Your task to perform on an android device: toggle pop-ups in chrome Image 0: 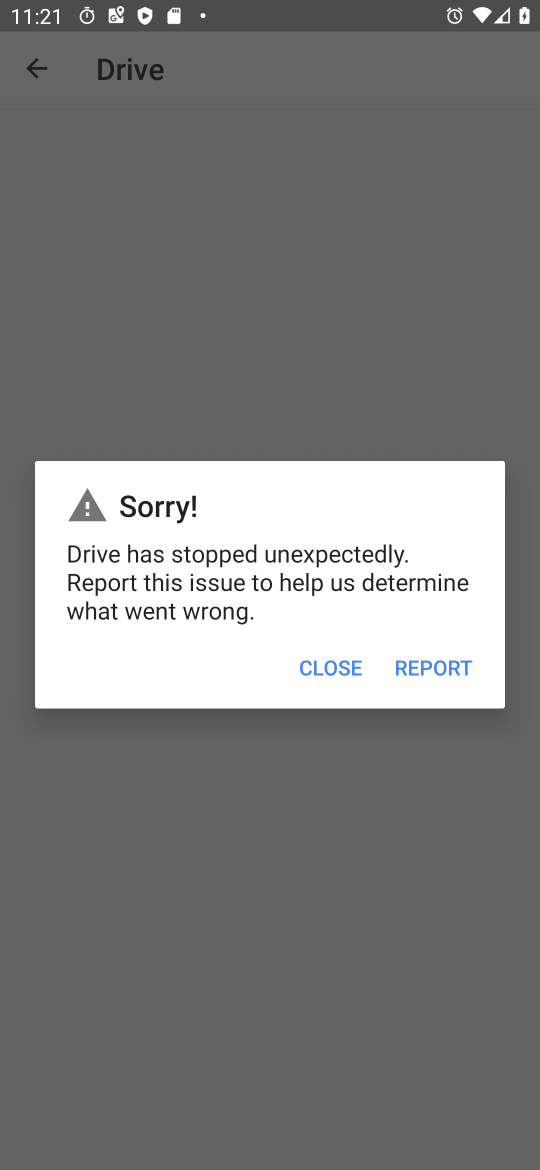
Step 0: press home button
Your task to perform on an android device: toggle pop-ups in chrome Image 1: 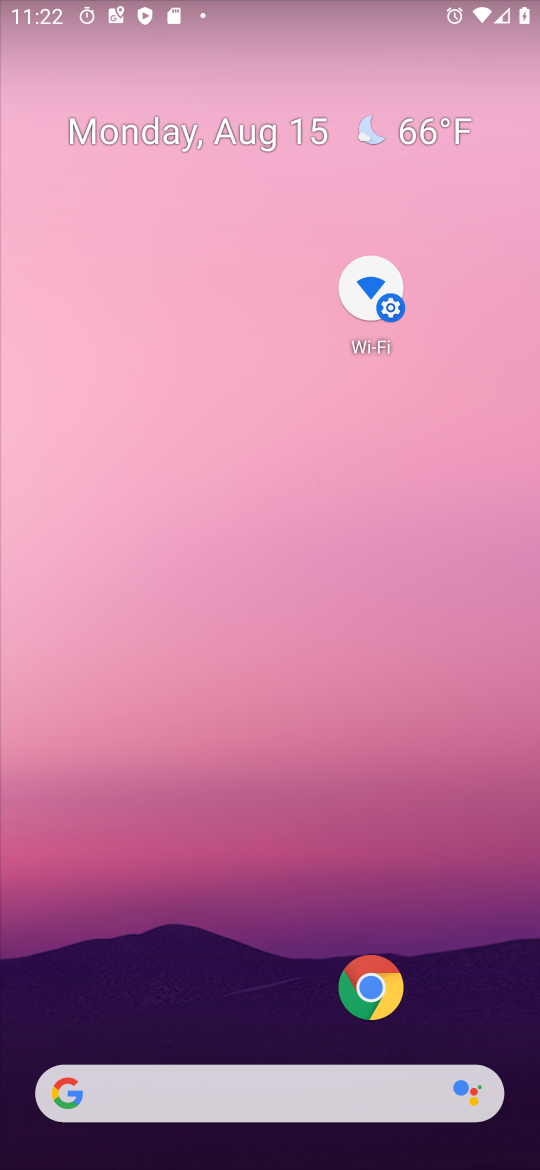
Step 1: drag from (285, 1042) to (469, 913)
Your task to perform on an android device: toggle pop-ups in chrome Image 2: 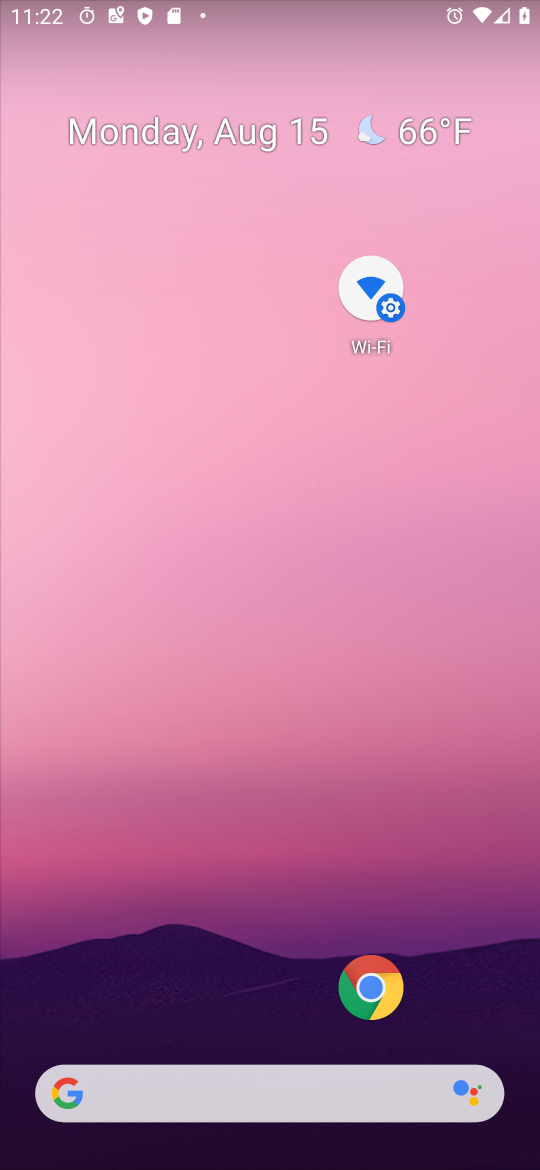
Step 2: click (354, 1006)
Your task to perform on an android device: toggle pop-ups in chrome Image 3: 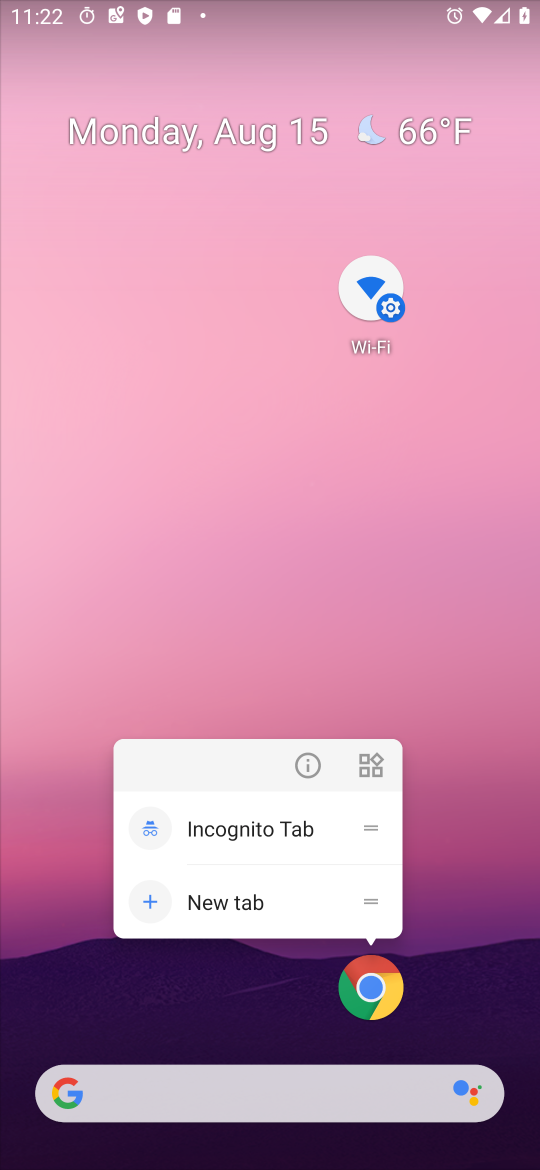
Step 3: click (373, 977)
Your task to perform on an android device: toggle pop-ups in chrome Image 4: 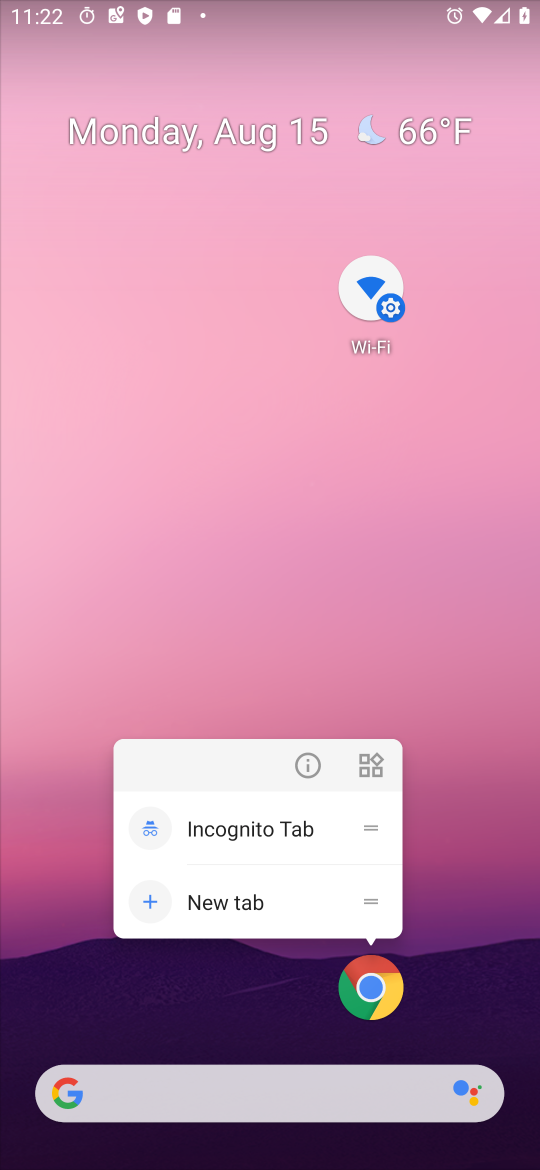
Step 4: click (385, 988)
Your task to perform on an android device: toggle pop-ups in chrome Image 5: 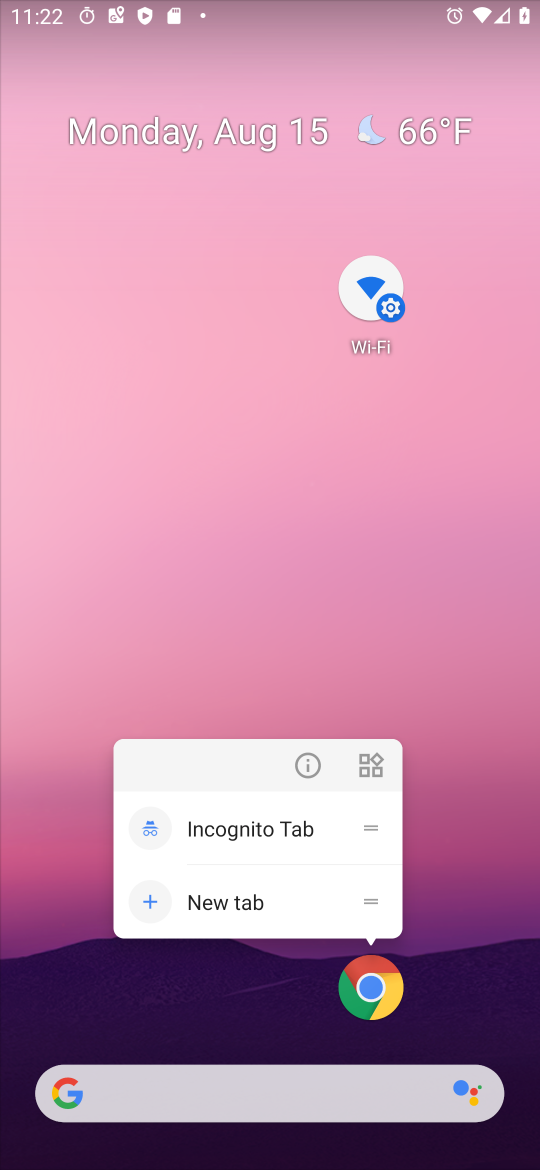
Step 5: click (371, 962)
Your task to perform on an android device: toggle pop-ups in chrome Image 6: 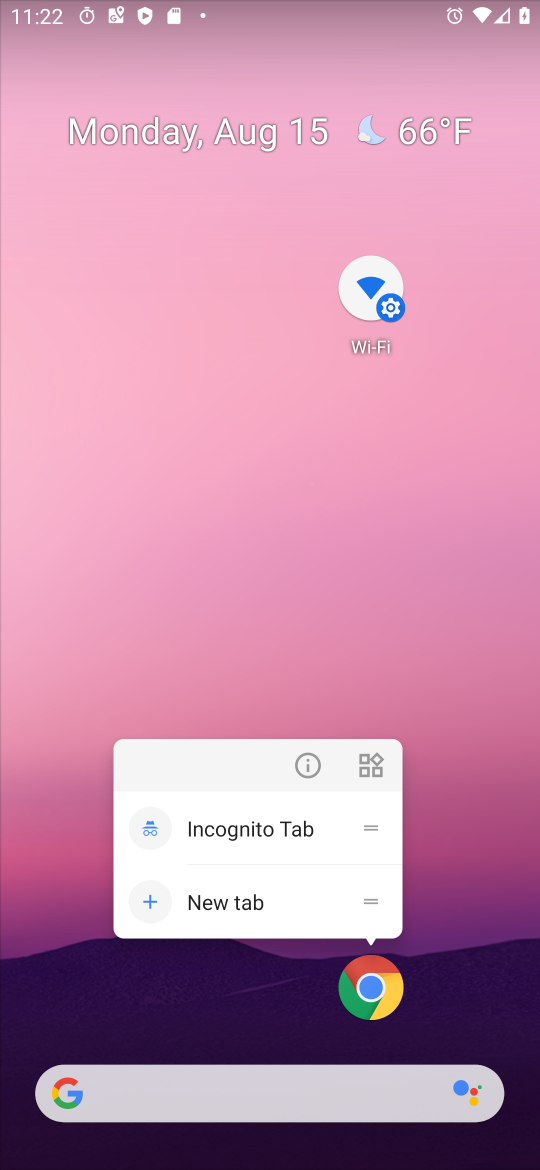
Step 6: click (381, 1001)
Your task to perform on an android device: toggle pop-ups in chrome Image 7: 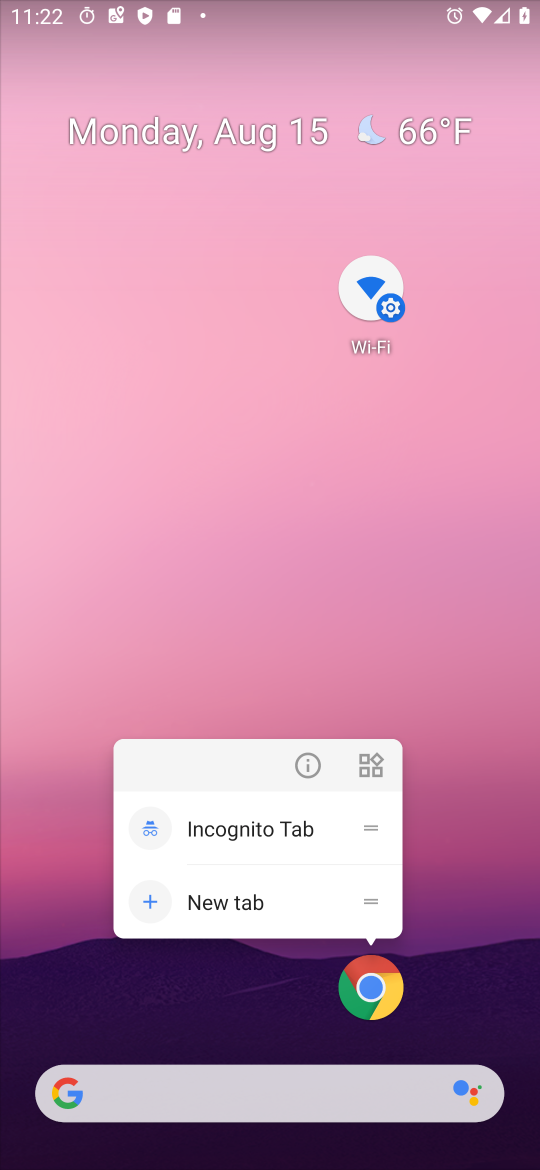
Step 7: click (382, 1002)
Your task to perform on an android device: toggle pop-ups in chrome Image 8: 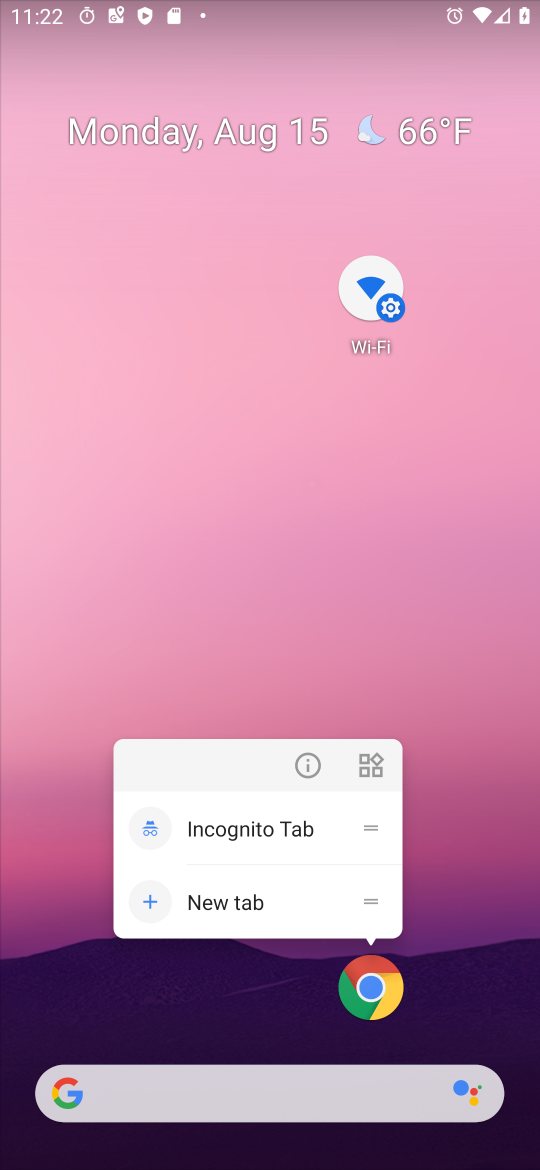
Step 8: click (384, 1002)
Your task to perform on an android device: toggle pop-ups in chrome Image 9: 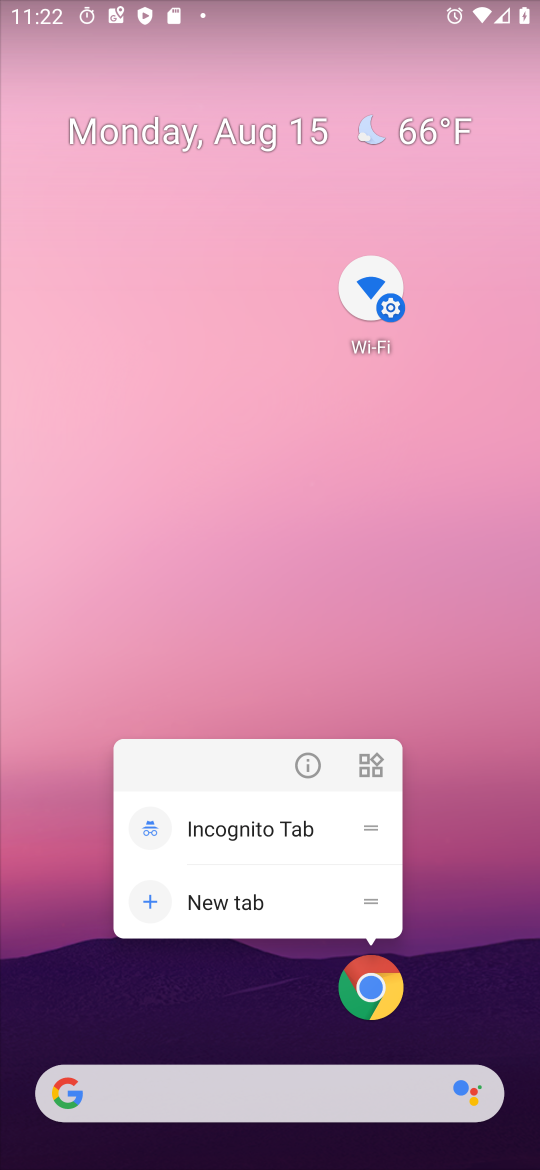
Step 9: click (387, 992)
Your task to perform on an android device: toggle pop-ups in chrome Image 10: 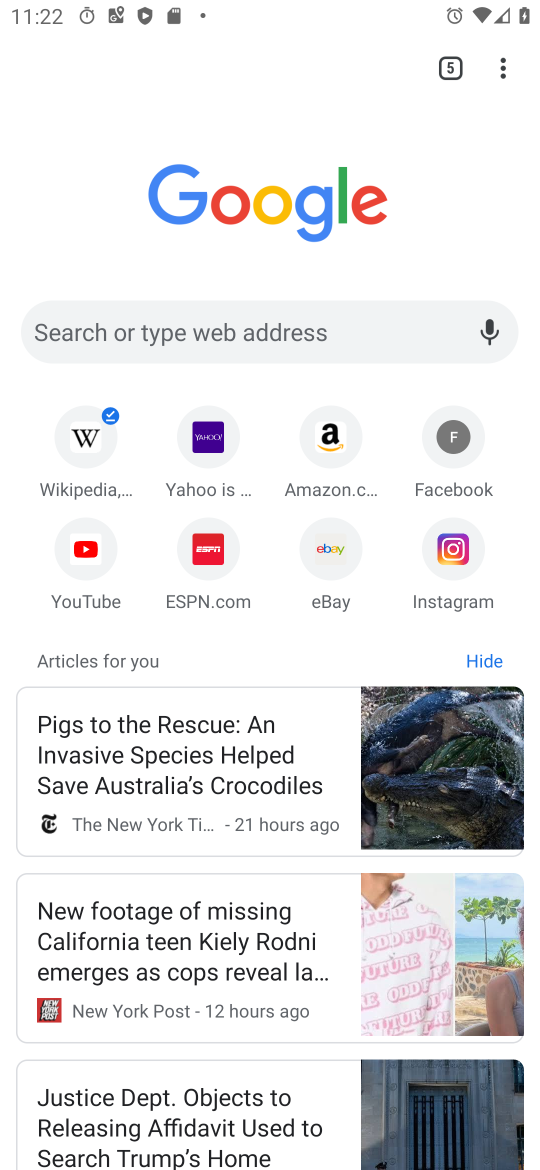
Step 10: click (498, 67)
Your task to perform on an android device: toggle pop-ups in chrome Image 11: 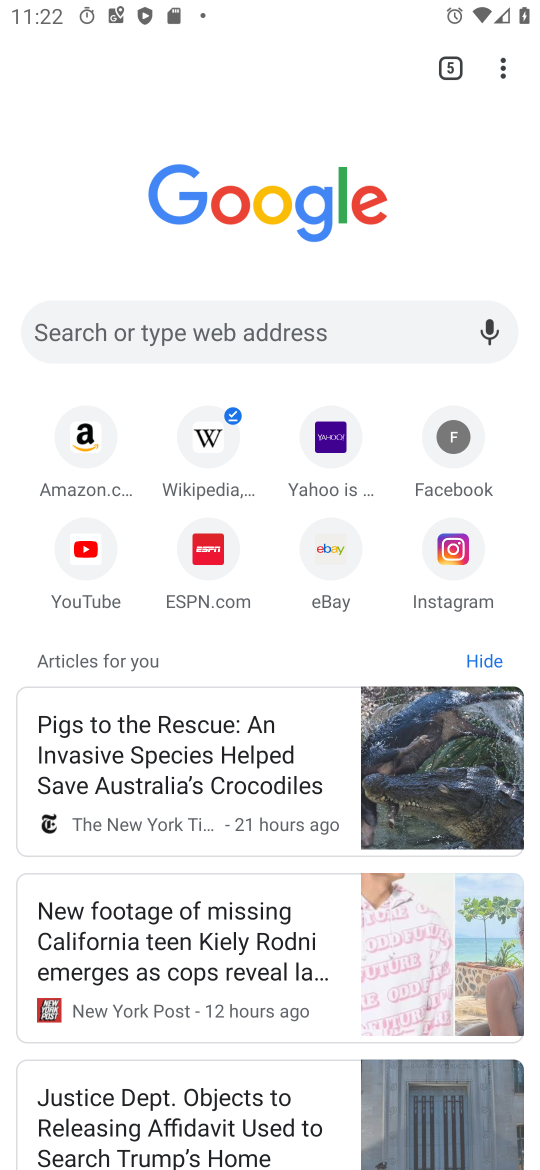
Step 11: drag from (496, 67) to (275, 640)
Your task to perform on an android device: toggle pop-ups in chrome Image 12: 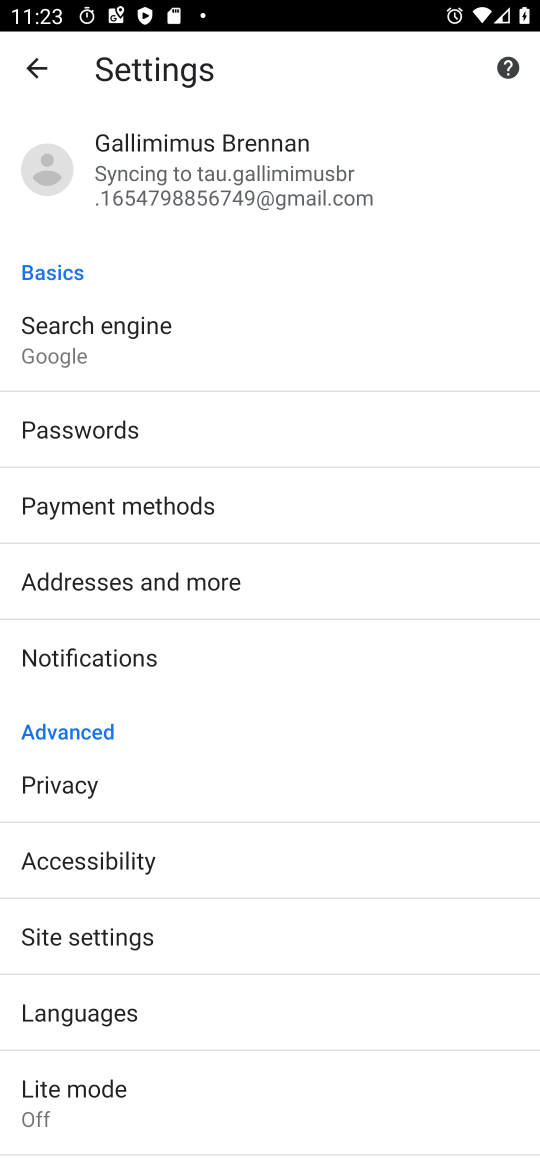
Step 12: click (106, 934)
Your task to perform on an android device: toggle pop-ups in chrome Image 13: 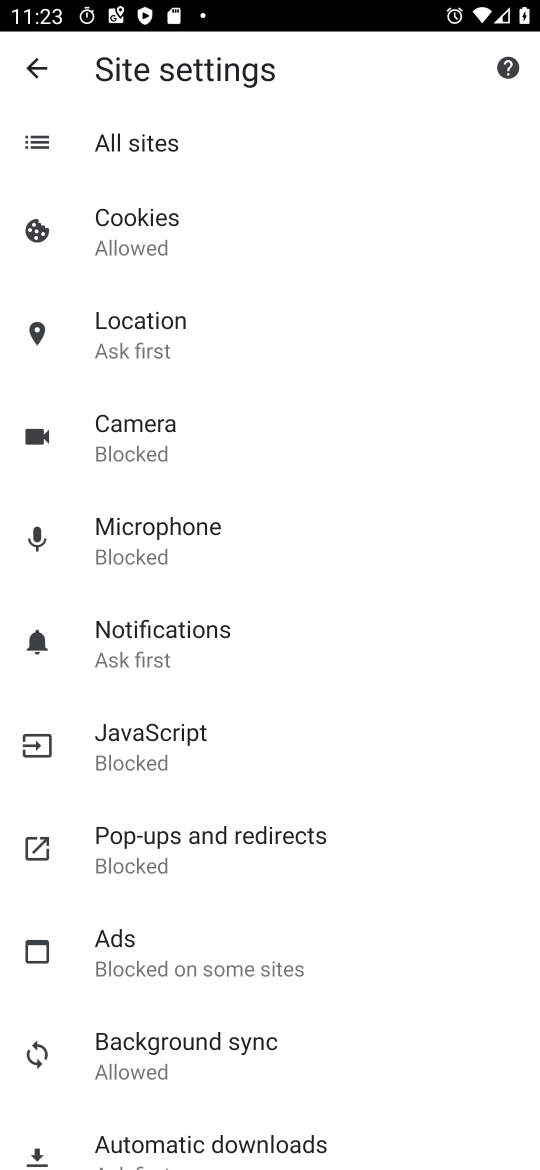
Step 13: click (150, 838)
Your task to perform on an android device: toggle pop-ups in chrome Image 14: 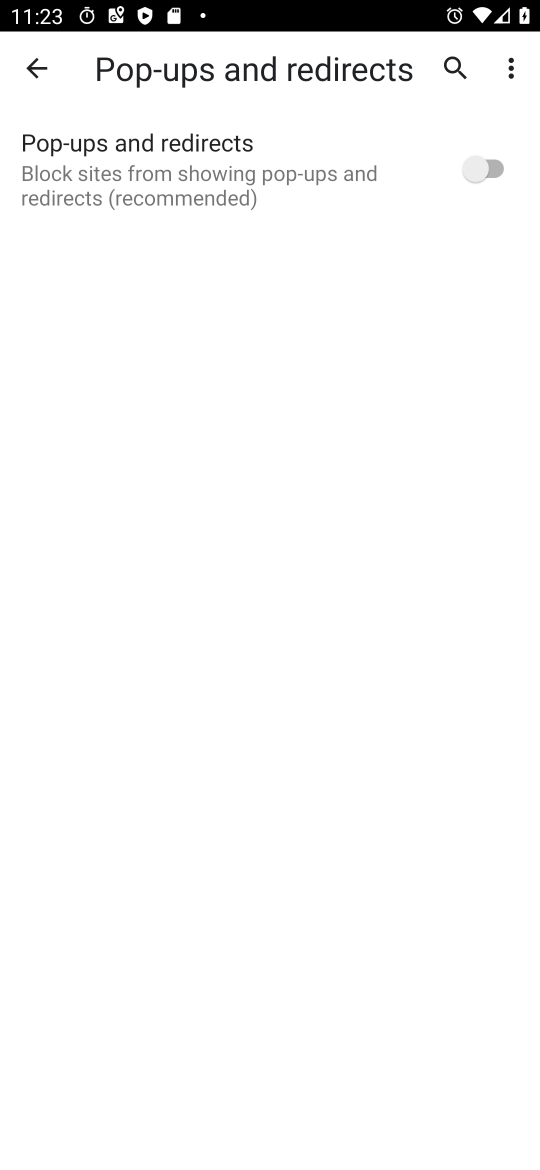
Step 14: click (496, 167)
Your task to perform on an android device: toggle pop-ups in chrome Image 15: 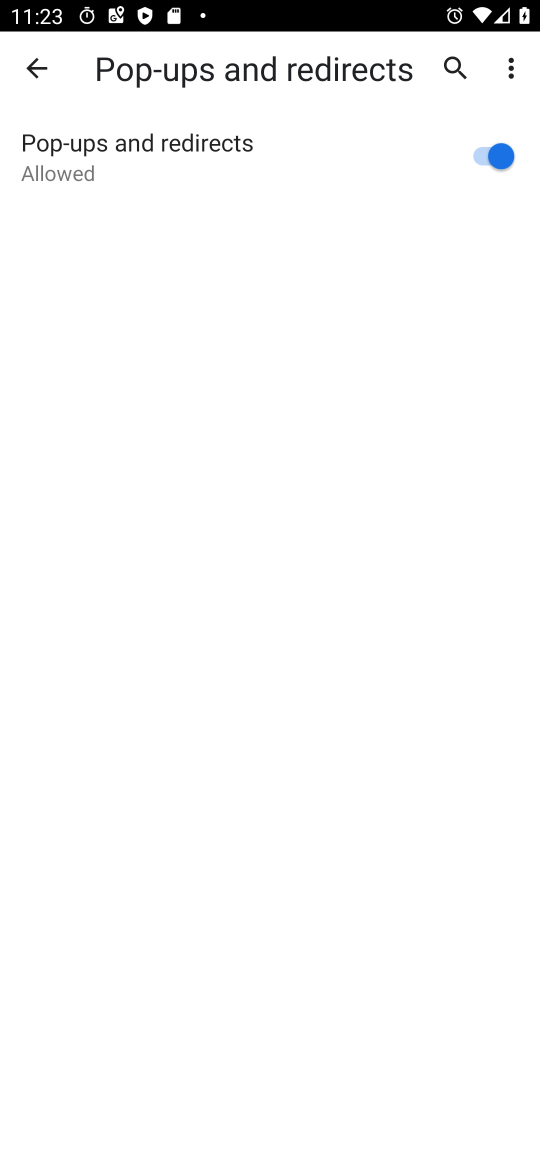
Step 15: task complete